Your task to perform on an android device: toggle airplane mode Image 0: 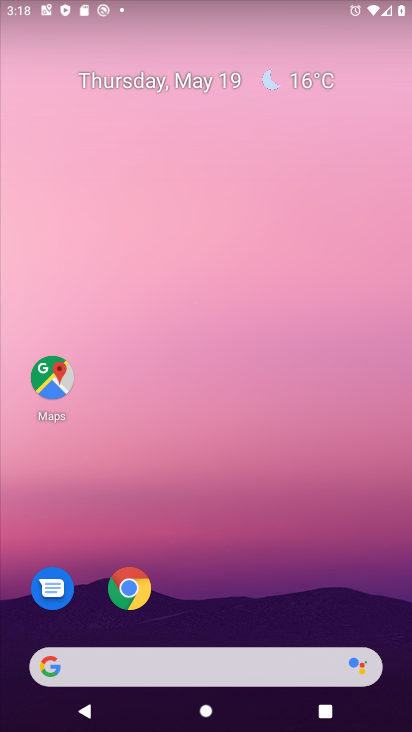
Step 0: drag from (308, 0) to (337, 468)
Your task to perform on an android device: toggle airplane mode Image 1: 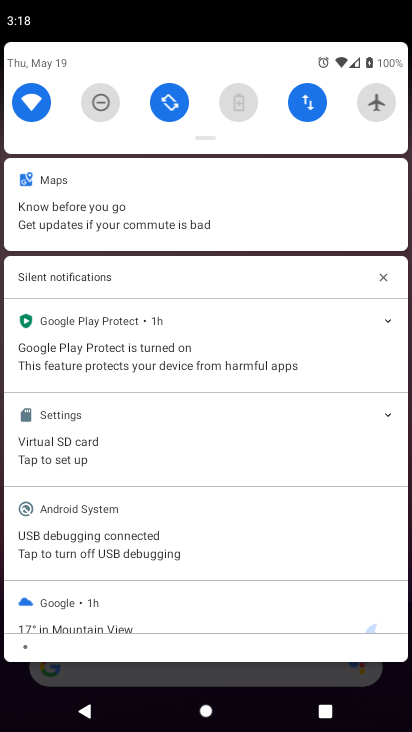
Step 1: click (372, 102)
Your task to perform on an android device: toggle airplane mode Image 2: 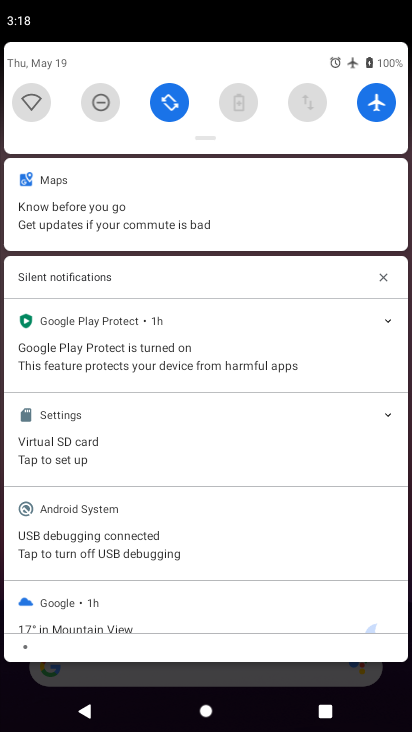
Step 2: task complete